Your task to perform on an android device: Search for Italian restaurants on Maps Image 0: 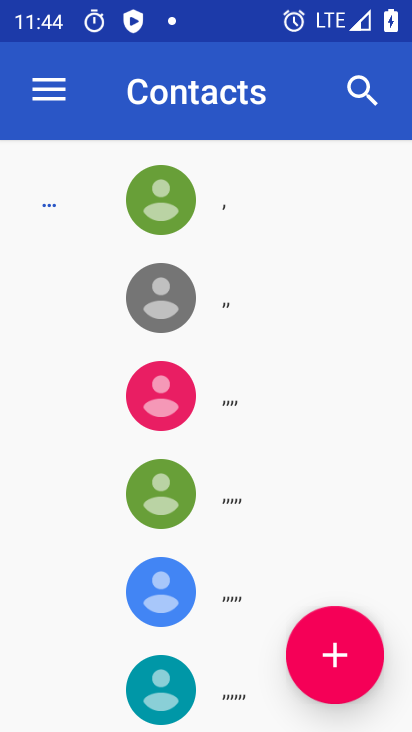
Step 0: press home button
Your task to perform on an android device: Search for Italian restaurants on Maps Image 1: 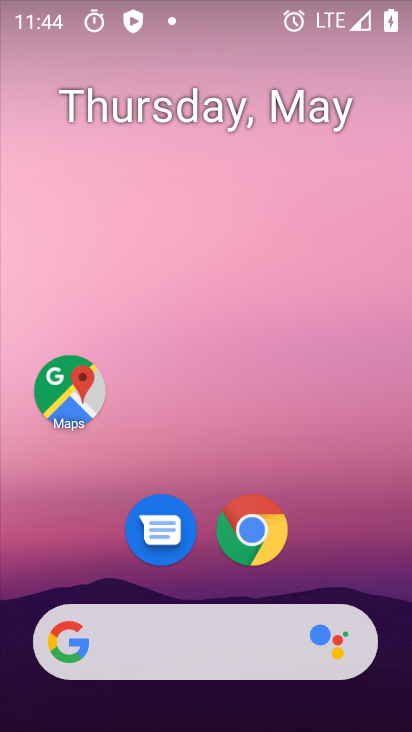
Step 1: click (45, 391)
Your task to perform on an android device: Search for Italian restaurants on Maps Image 2: 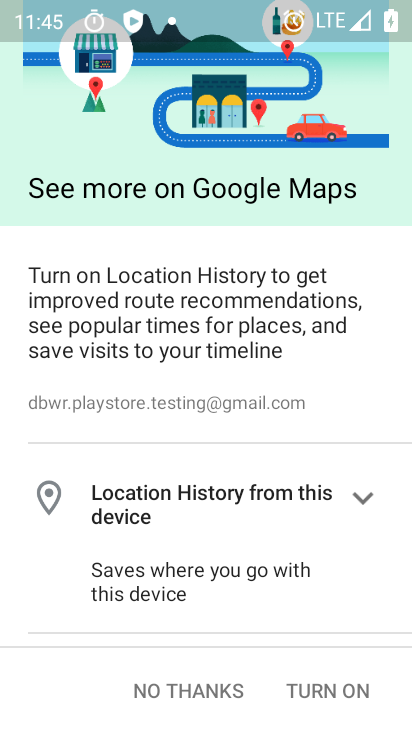
Step 2: click (212, 686)
Your task to perform on an android device: Search for Italian restaurants on Maps Image 3: 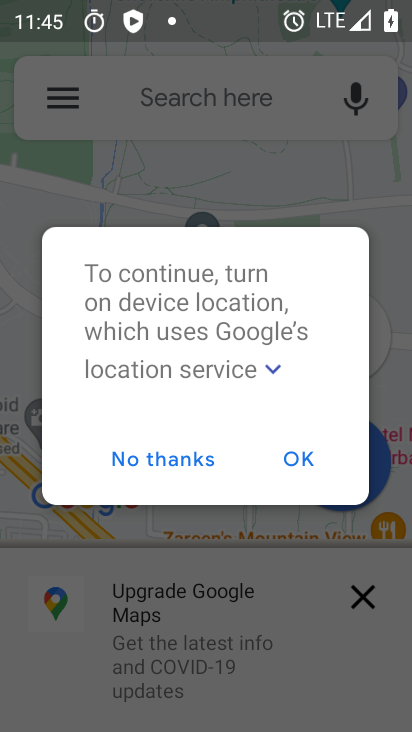
Step 3: click (302, 458)
Your task to perform on an android device: Search for Italian restaurants on Maps Image 4: 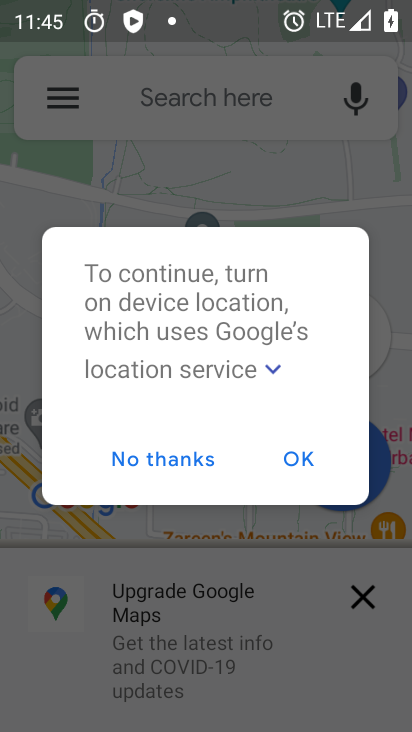
Step 4: click (179, 462)
Your task to perform on an android device: Search for Italian restaurants on Maps Image 5: 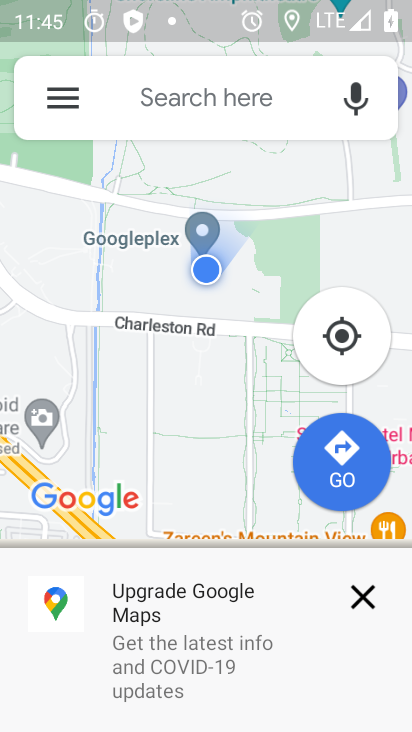
Step 5: click (246, 98)
Your task to perform on an android device: Search for Italian restaurants on Maps Image 6: 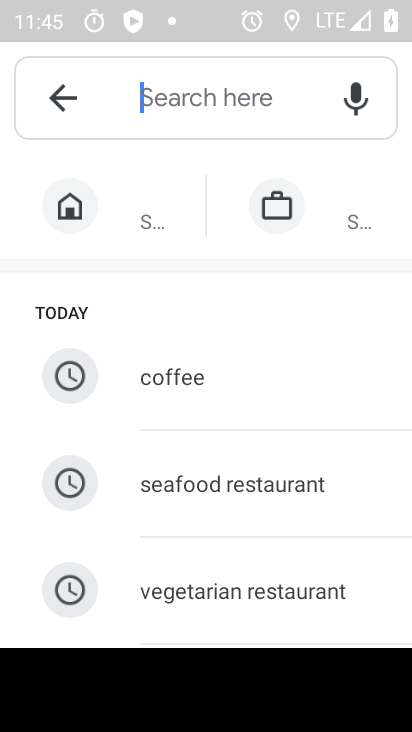
Step 6: type "italian restaurant"
Your task to perform on an android device: Search for Italian restaurants on Maps Image 7: 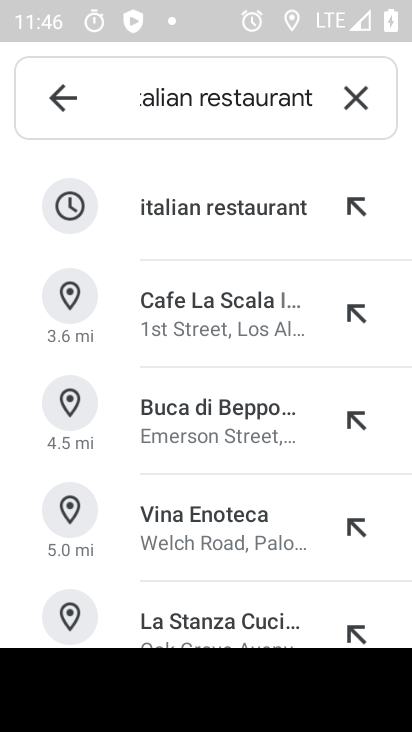
Step 7: click (177, 188)
Your task to perform on an android device: Search for Italian restaurants on Maps Image 8: 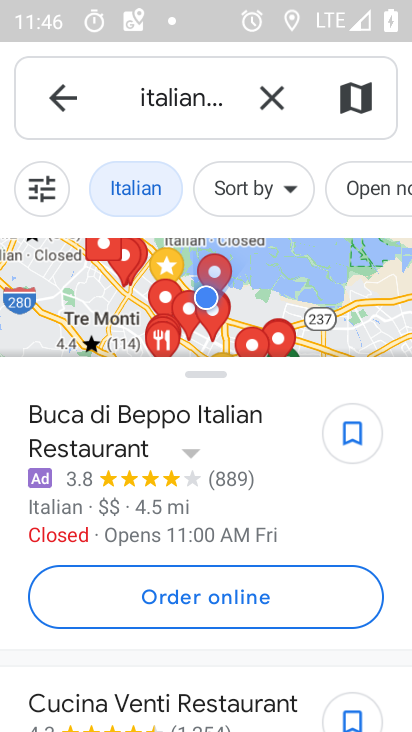
Step 8: task complete